Your task to perform on an android device: Open ESPN.com Image 0: 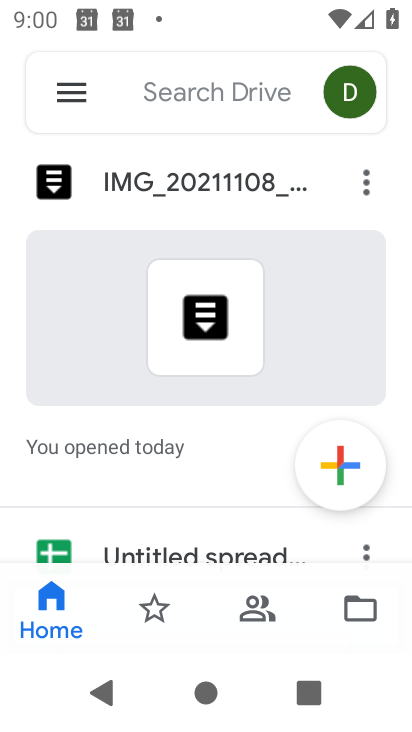
Step 0: press home button
Your task to perform on an android device: Open ESPN.com Image 1: 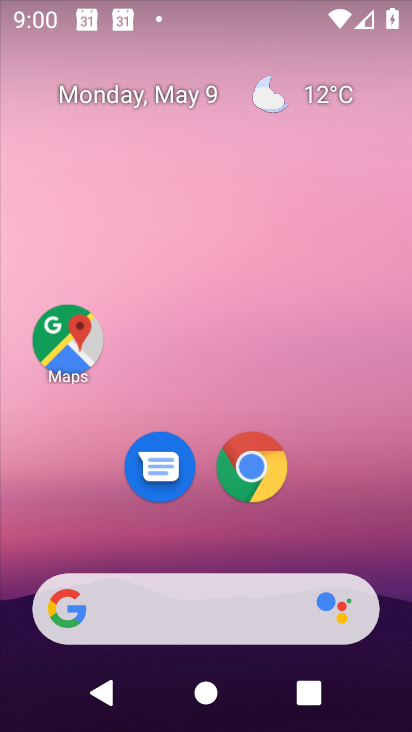
Step 1: click (264, 476)
Your task to perform on an android device: Open ESPN.com Image 2: 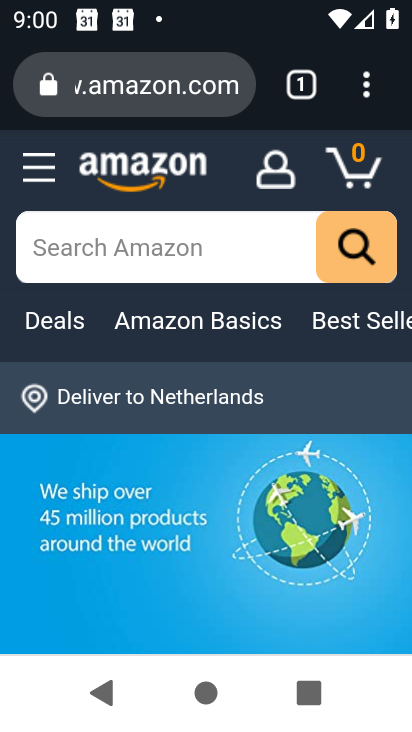
Step 2: click (119, 98)
Your task to perform on an android device: Open ESPN.com Image 3: 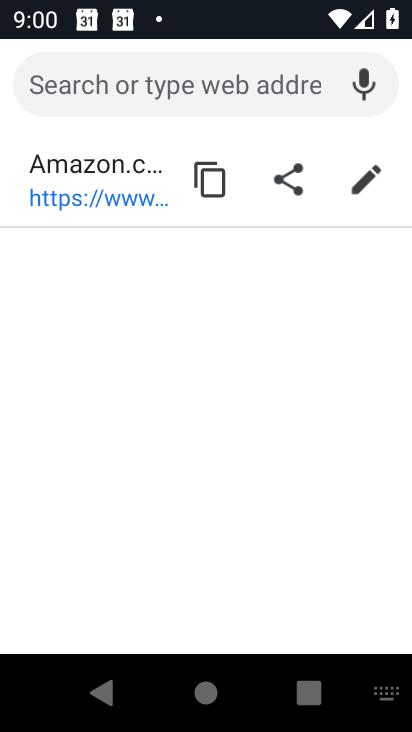
Step 3: type "espn.com"
Your task to perform on an android device: Open ESPN.com Image 4: 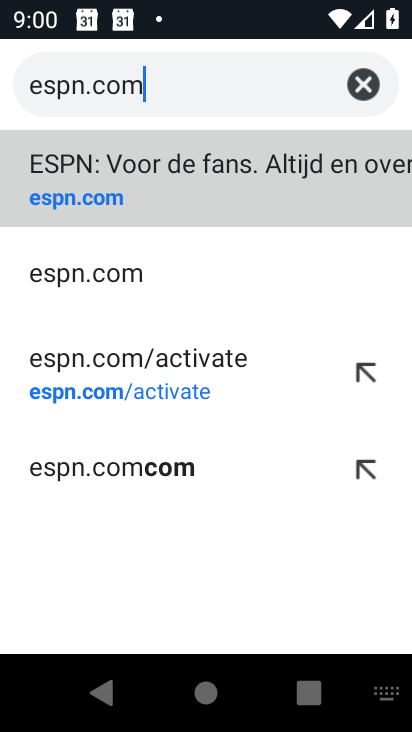
Step 4: click (111, 277)
Your task to perform on an android device: Open ESPN.com Image 5: 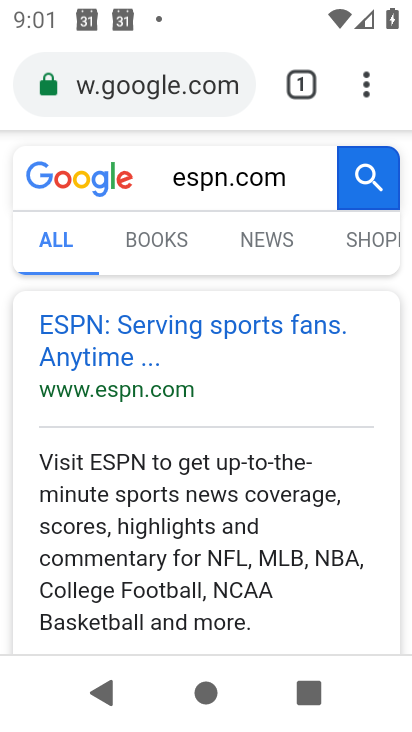
Step 5: click (96, 396)
Your task to perform on an android device: Open ESPN.com Image 6: 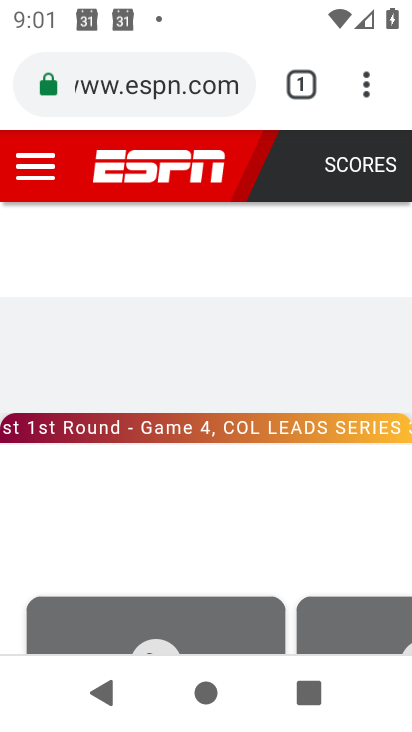
Step 6: task complete